Your task to perform on an android device: check battery use Image 0: 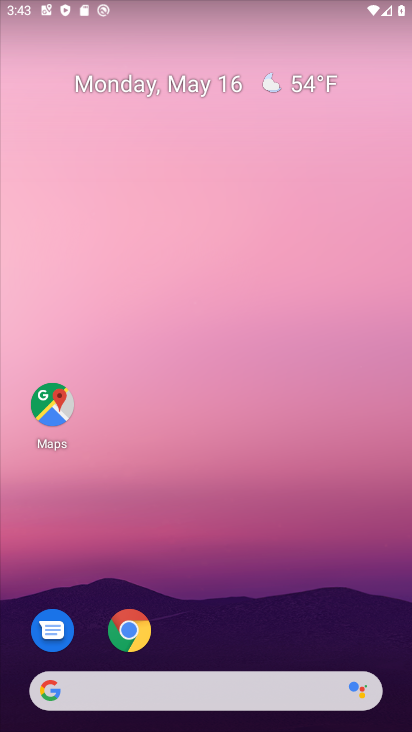
Step 0: drag from (243, 259) to (220, 158)
Your task to perform on an android device: check battery use Image 1: 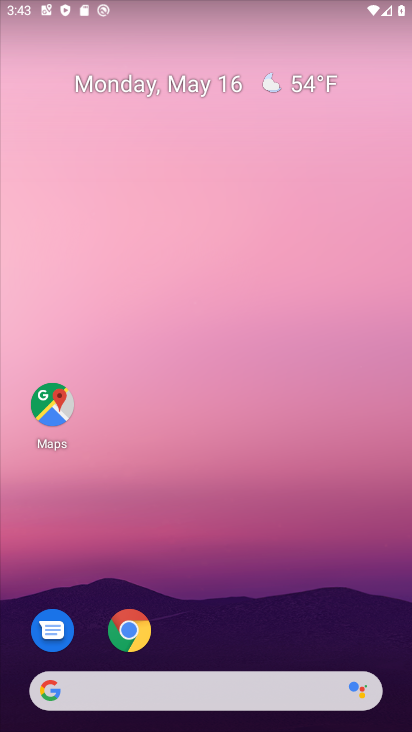
Step 1: drag from (225, 643) to (195, 169)
Your task to perform on an android device: check battery use Image 2: 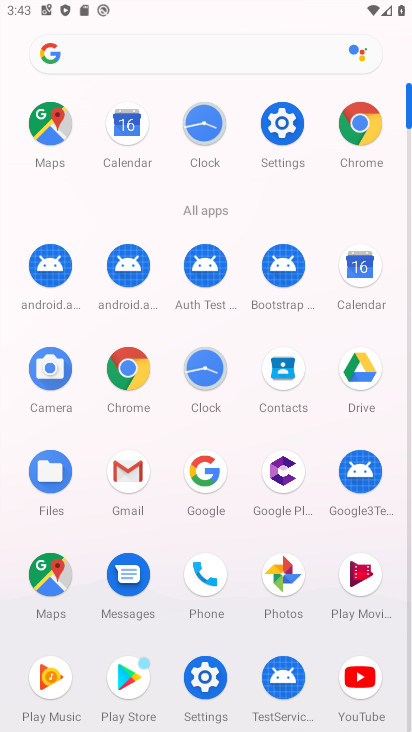
Step 2: click (294, 140)
Your task to perform on an android device: check battery use Image 3: 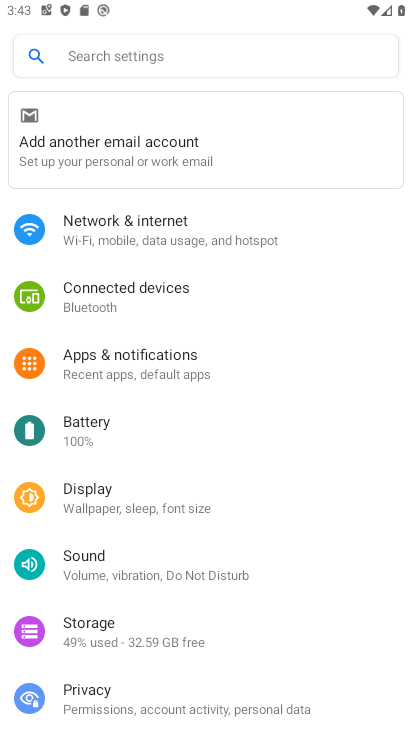
Step 3: click (214, 437)
Your task to perform on an android device: check battery use Image 4: 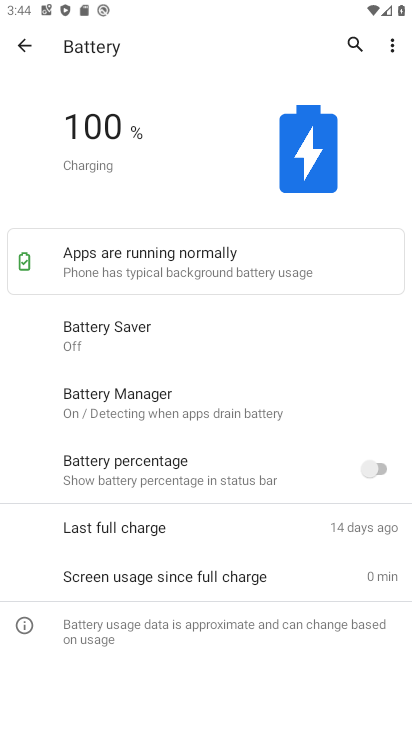
Step 4: task complete